Your task to perform on an android device: toggle show notifications on the lock screen Image 0: 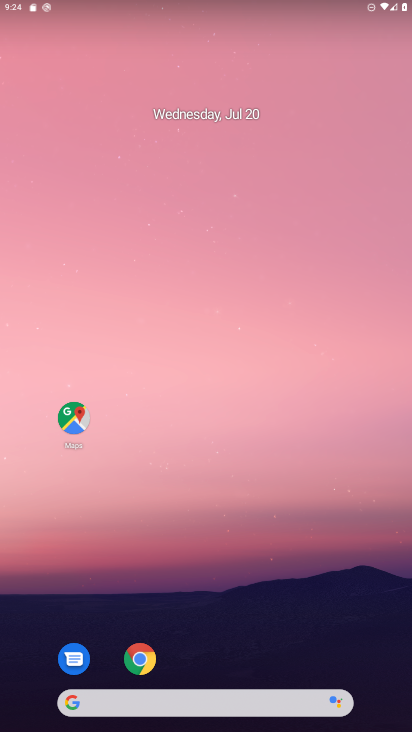
Step 0: drag from (326, 571) to (245, 164)
Your task to perform on an android device: toggle show notifications on the lock screen Image 1: 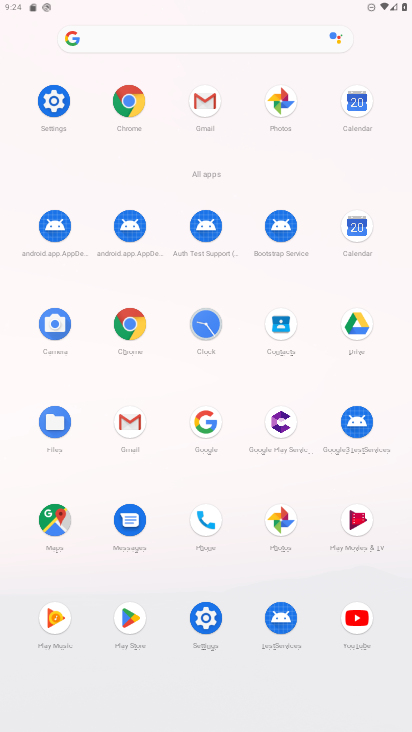
Step 1: click (41, 88)
Your task to perform on an android device: toggle show notifications on the lock screen Image 2: 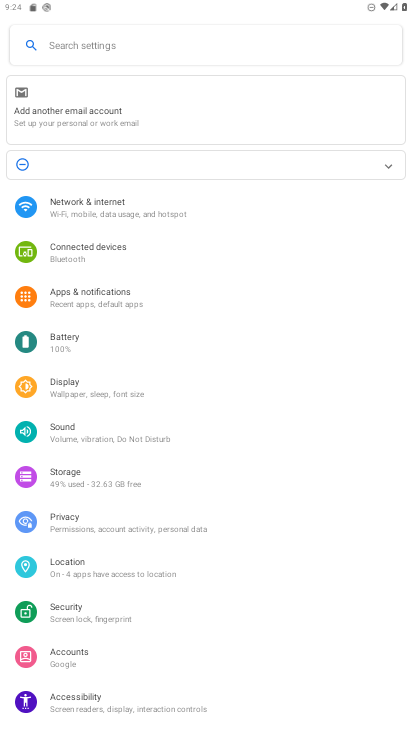
Step 2: click (117, 289)
Your task to perform on an android device: toggle show notifications on the lock screen Image 3: 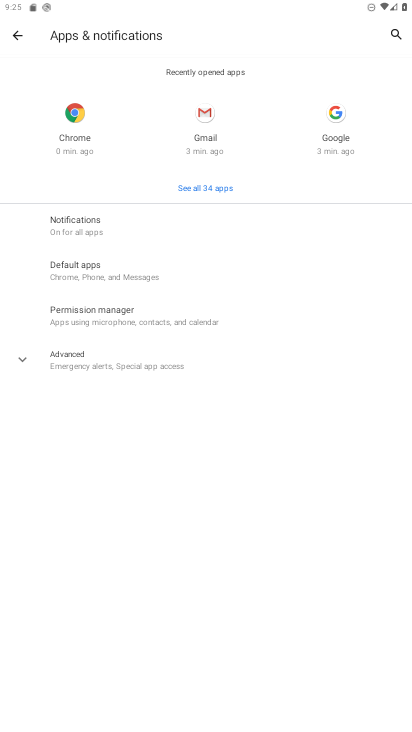
Step 3: click (102, 238)
Your task to perform on an android device: toggle show notifications on the lock screen Image 4: 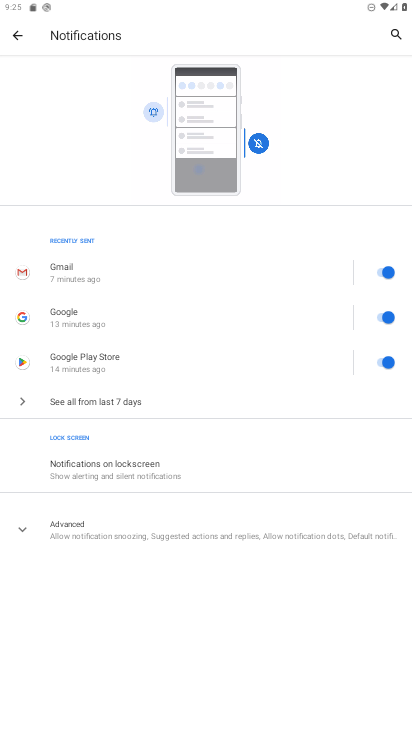
Step 4: click (109, 523)
Your task to perform on an android device: toggle show notifications on the lock screen Image 5: 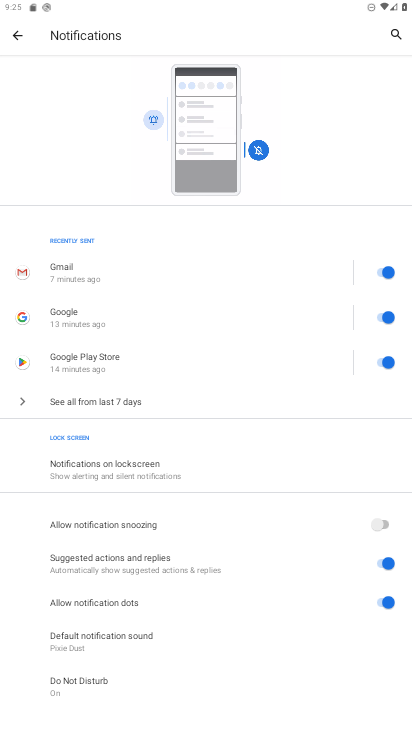
Step 5: drag from (212, 618) to (233, 448)
Your task to perform on an android device: toggle show notifications on the lock screen Image 6: 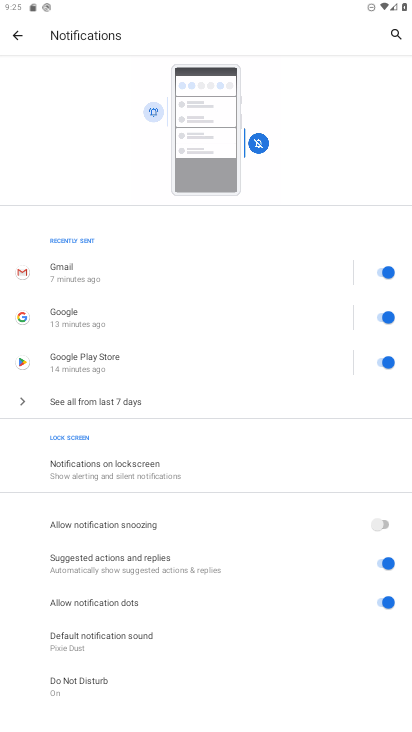
Step 6: click (182, 469)
Your task to perform on an android device: toggle show notifications on the lock screen Image 7: 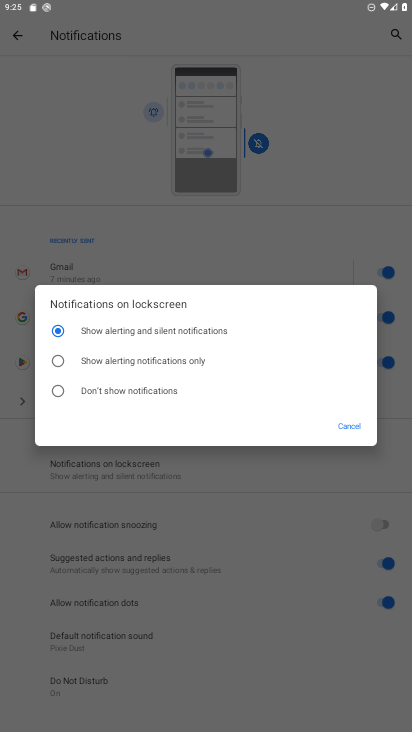
Step 7: click (169, 361)
Your task to perform on an android device: toggle show notifications on the lock screen Image 8: 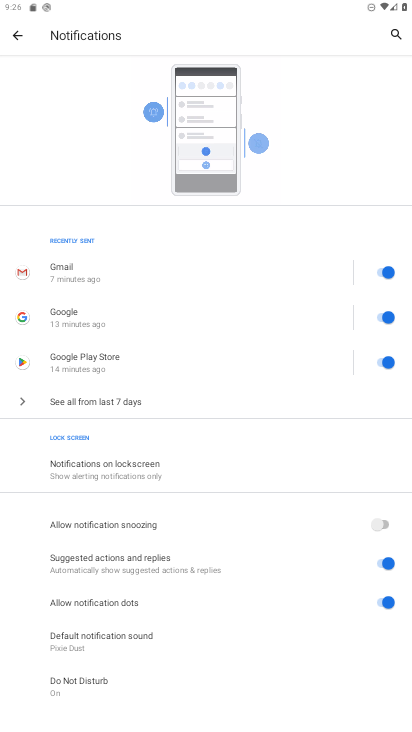
Step 8: task complete